Your task to perform on an android device: toggle pop-ups in chrome Image 0: 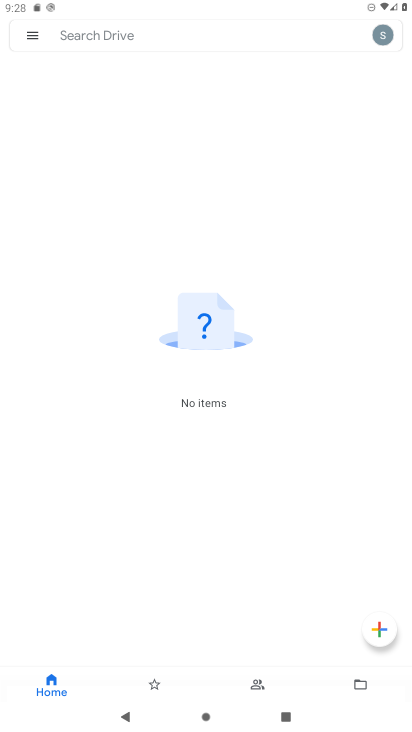
Step 0: press home button
Your task to perform on an android device: toggle pop-ups in chrome Image 1: 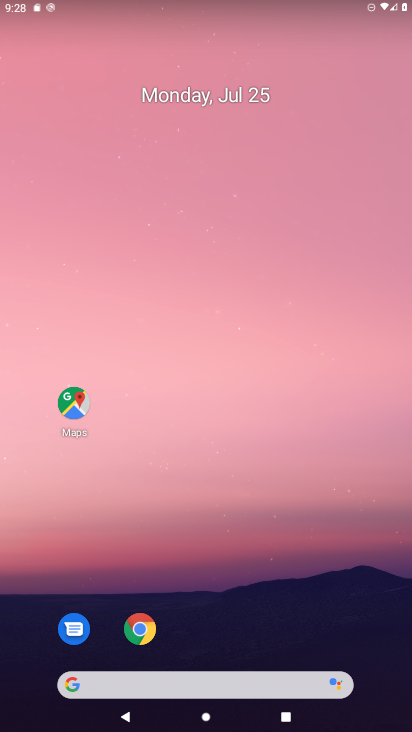
Step 1: click (141, 647)
Your task to perform on an android device: toggle pop-ups in chrome Image 2: 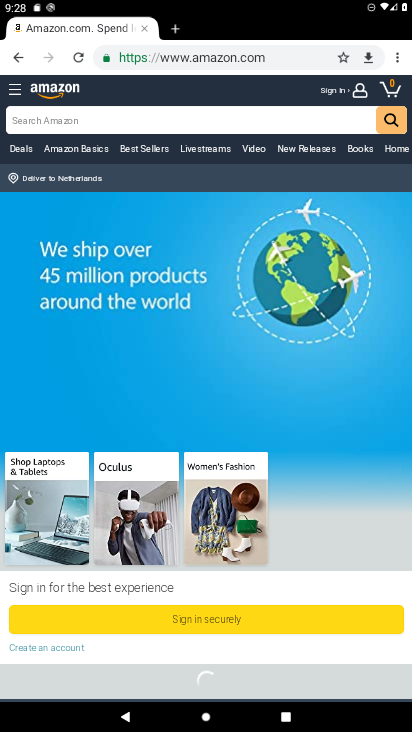
Step 2: drag from (401, 63) to (287, 385)
Your task to perform on an android device: toggle pop-ups in chrome Image 3: 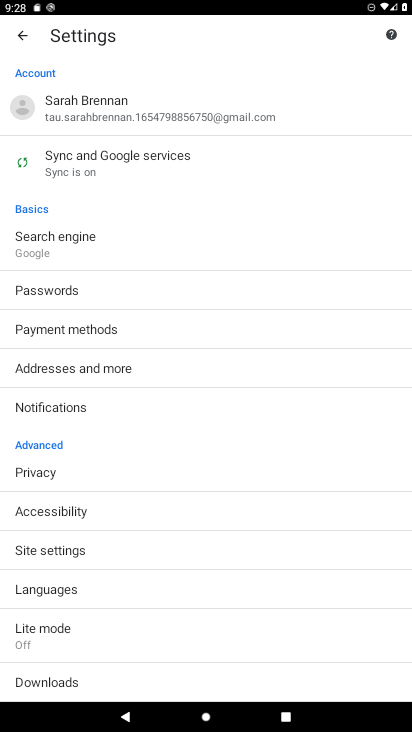
Step 3: click (63, 559)
Your task to perform on an android device: toggle pop-ups in chrome Image 4: 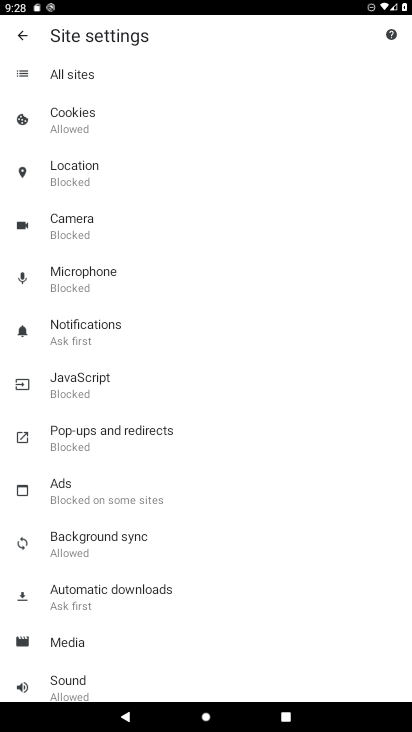
Step 4: click (79, 440)
Your task to perform on an android device: toggle pop-ups in chrome Image 5: 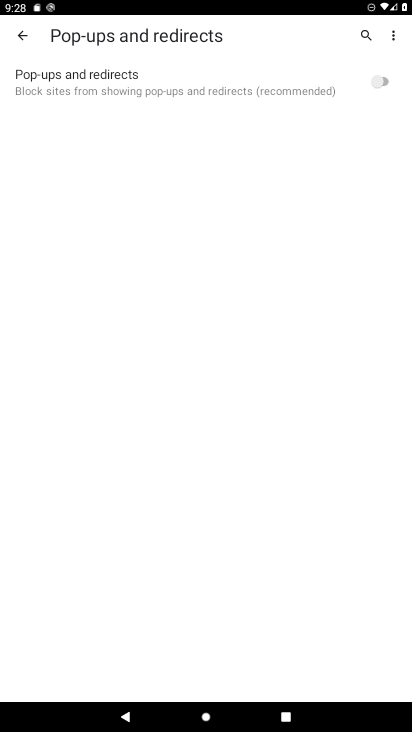
Step 5: click (371, 84)
Your task to perform on an android device: toggle pop-ups in chrome Image 6: 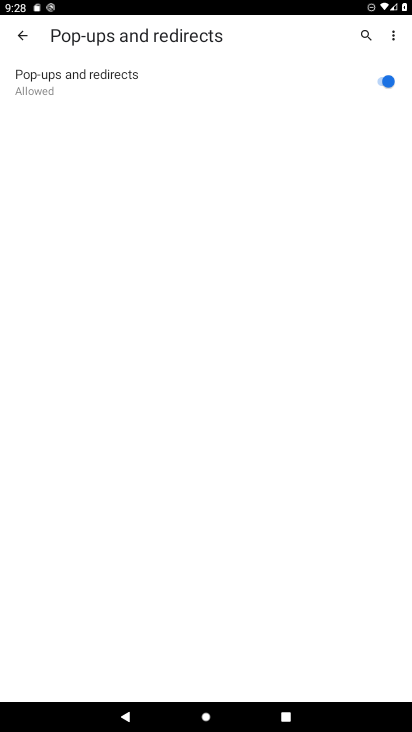
Step 6: task complete